Your task to perform on an android device: stop showing notifications on the lock screen Image 0: 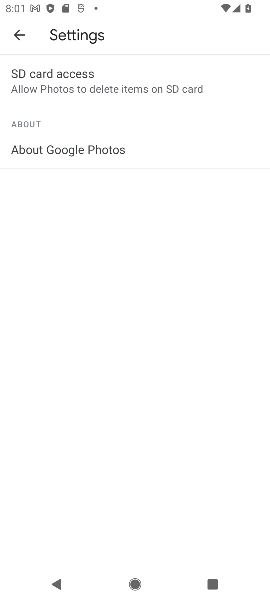
Step 0: press home button
Your task to perform on an android device: stop showing notifications on the lock screen Image 1: 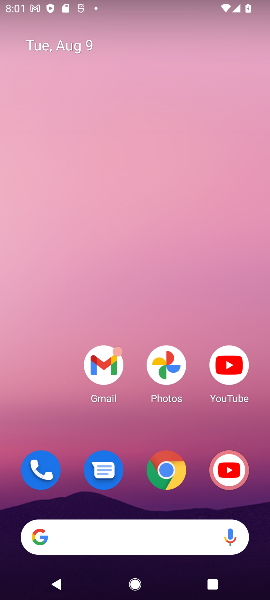
Step 1: drag from (148, 188) to (157, 99)
Your task to perform on an android device: stop showing notifications on the lock screen Image 2: 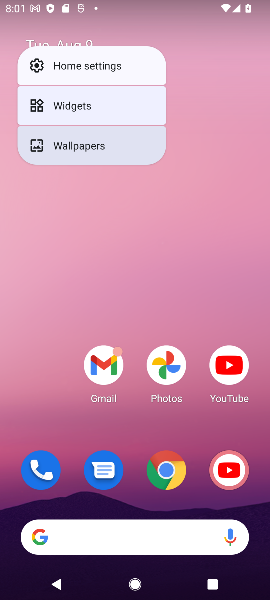
Step 2: click (52, 292)
Your task to perform on an android device: stop showing notifications on the lock screen Image 3: 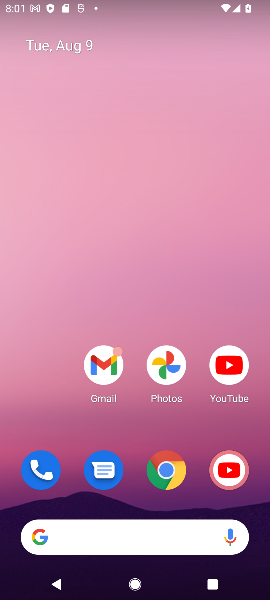
Step 3: click (126, 259)
Your task to perform on an android device: stop showing notifications on the lock screen Image 4: 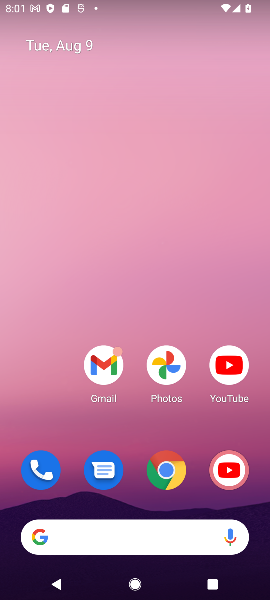
Step 4: drag from (133, 499) to (165, 45)
Your task to perform on an android device: stop showing notifications on the lock screen Image 5: 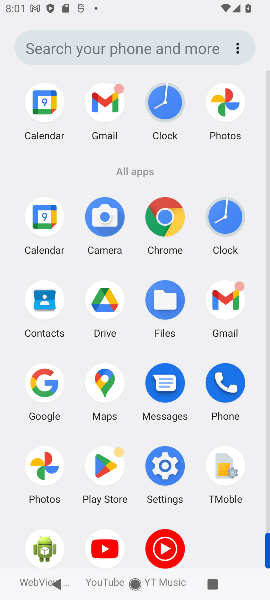
Step 5: click (164, 475)
Your task to perform on an android device: stop showing notifications on the lock screen Image 6: 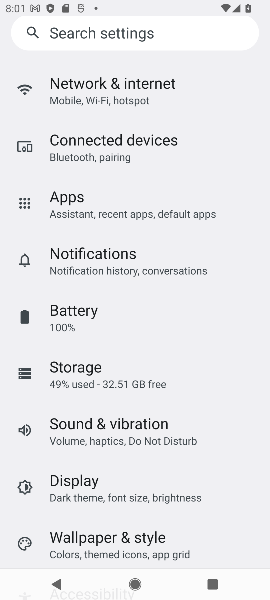
Step 6: click (116, 267)
Your task to perform on an android device: stop showing notifications on the lock screen Image 7: 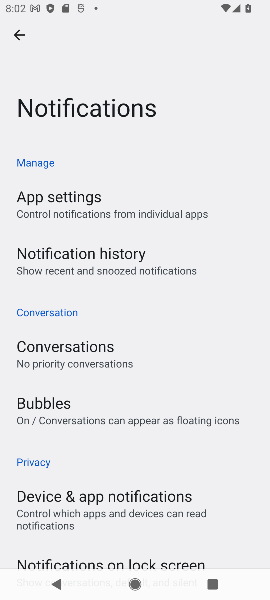
Step 7: drag from (120, 418) to (127, 381)
Your task to perform on an android device: stop showing notifications on the lock screen Image 8: 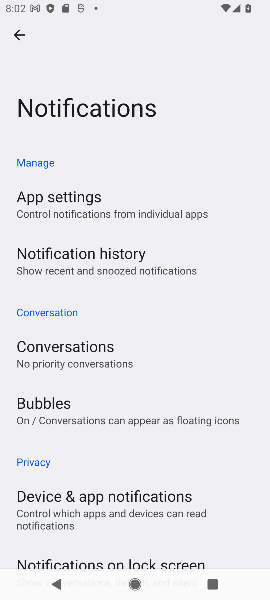
Step 8: drag from (102, 500) to (127, 326)
Your task to perform on an android device: stop showing notifications on the lock screen Image 9: 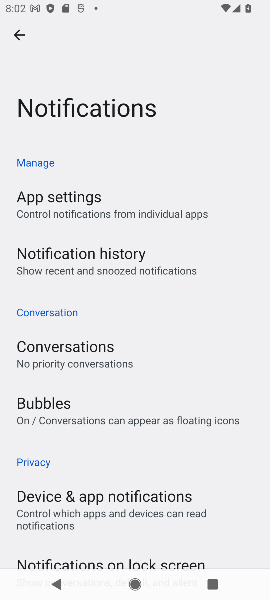
Step 9: drag from (112, 513) to (136, 333)
Your task to perform on an android device: stop showing notifications on the lock screen Image 10: 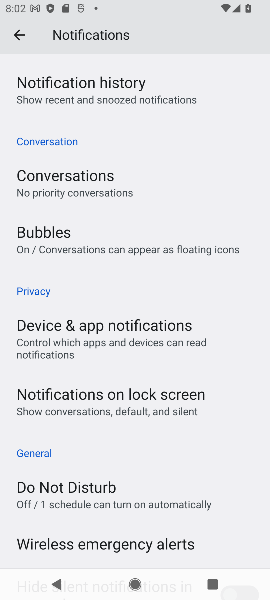
Step 10: click (80, 448)
Your task to perform on an android device: stop showing notifications on the lock screen Image 11: 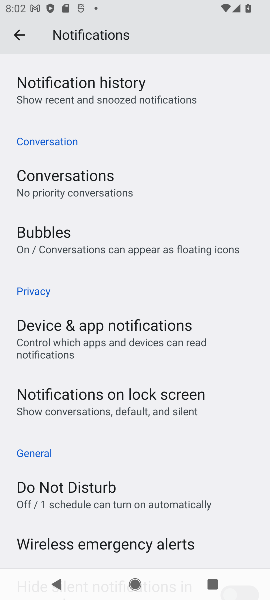
Step 11: click (97, 410)
Your task to perform on an android device: stop showing notifications on the lock screen Image 12: 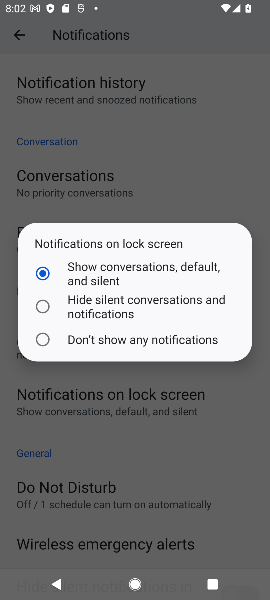
Step 12: click (90, 341)
Your task to perform on an android device: stop showing notifications on the lock screen Image 13: 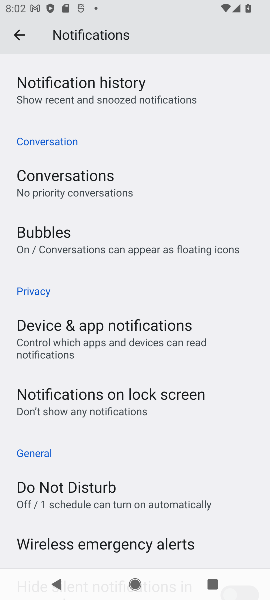
Step 13: task complete